Your task to perform on an android device: change alarm snooze length Image 0: 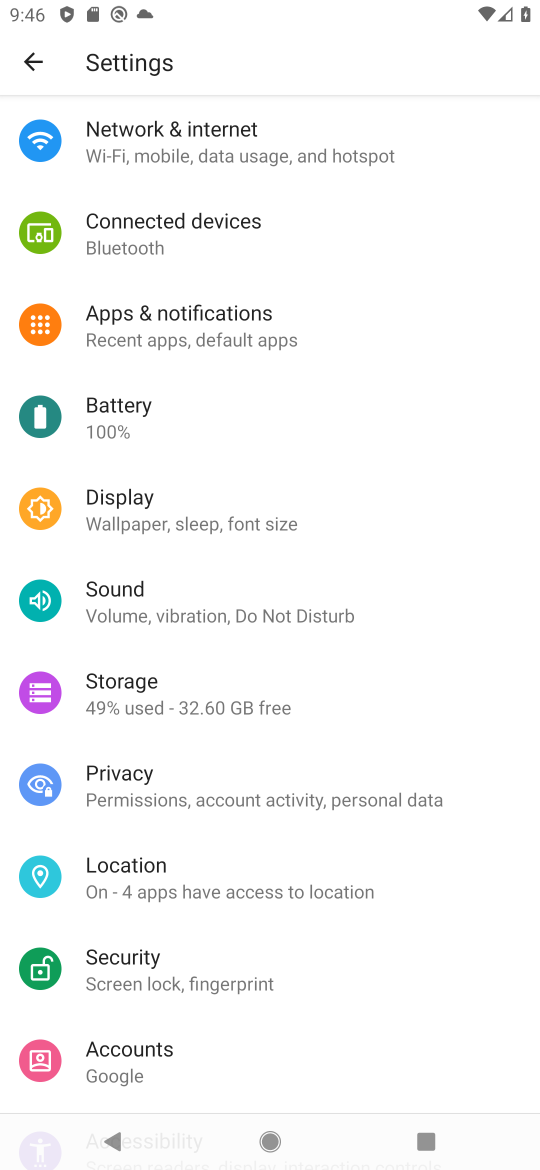
Step 0: press home button
Your task to perform on an android device: change alarm snooze length Image 1: 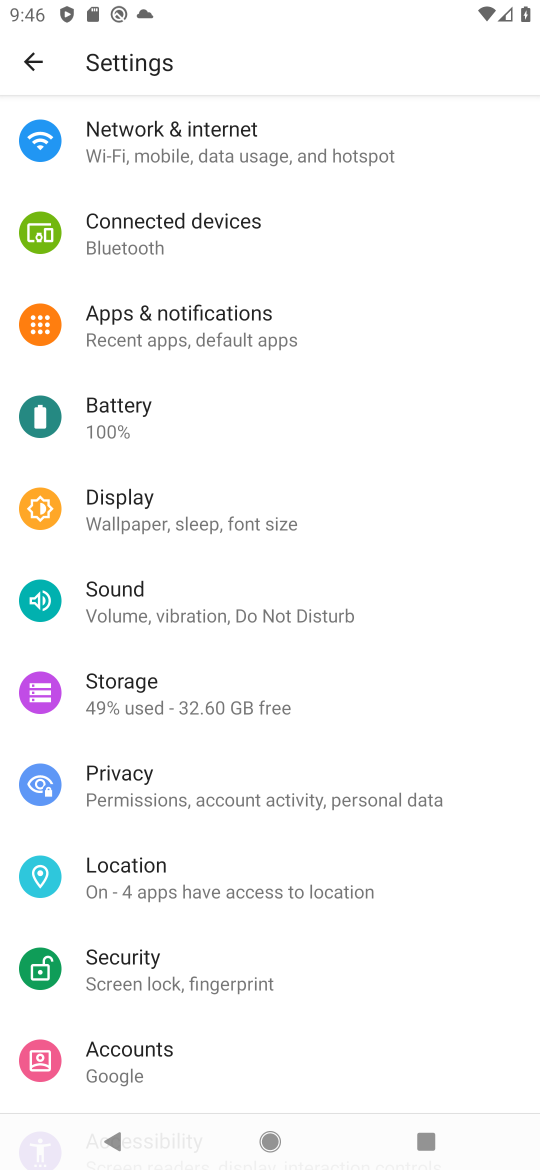
Step 1: press home button
Your task to perform on an android device: change alarm snooze length Image 2: 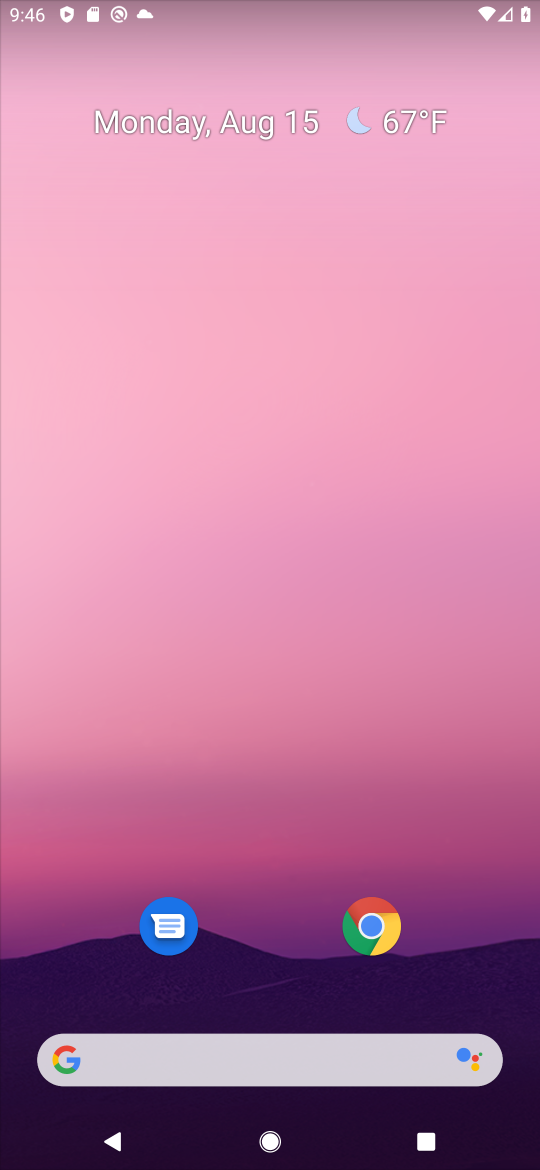
Step 2: drag from (273, 973) to (329, 42)
Your task to perform on an android device: change alarm snooze length Image 3: 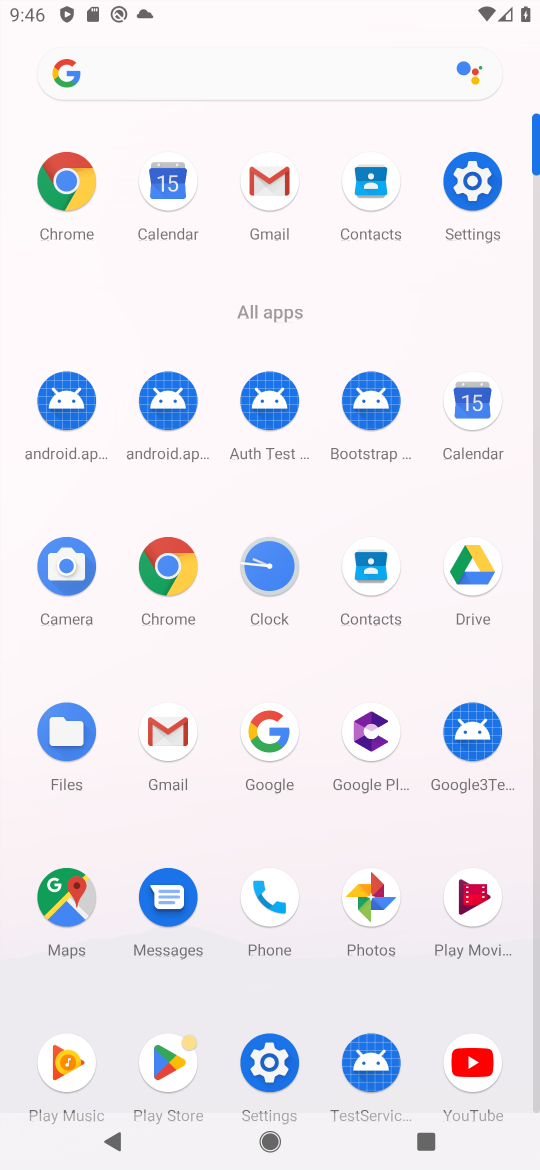
Step 3: click (471, 1075)
Your task to perform on an android device: change alarm snooze length Image 4: 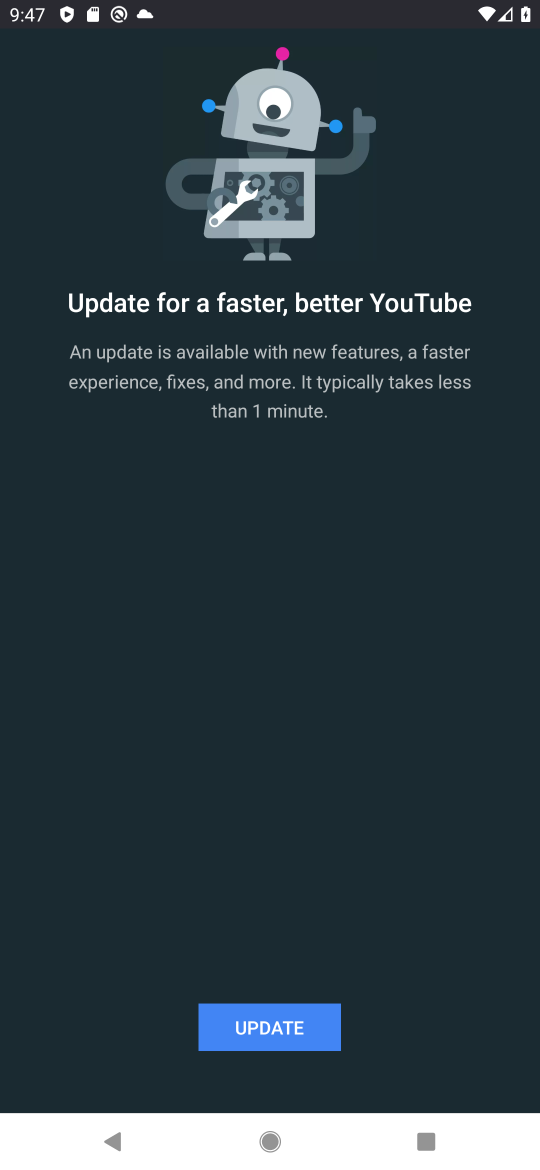
Step 4: press home button
Your task to perform on an android device: change alarm snooze length Image 5: 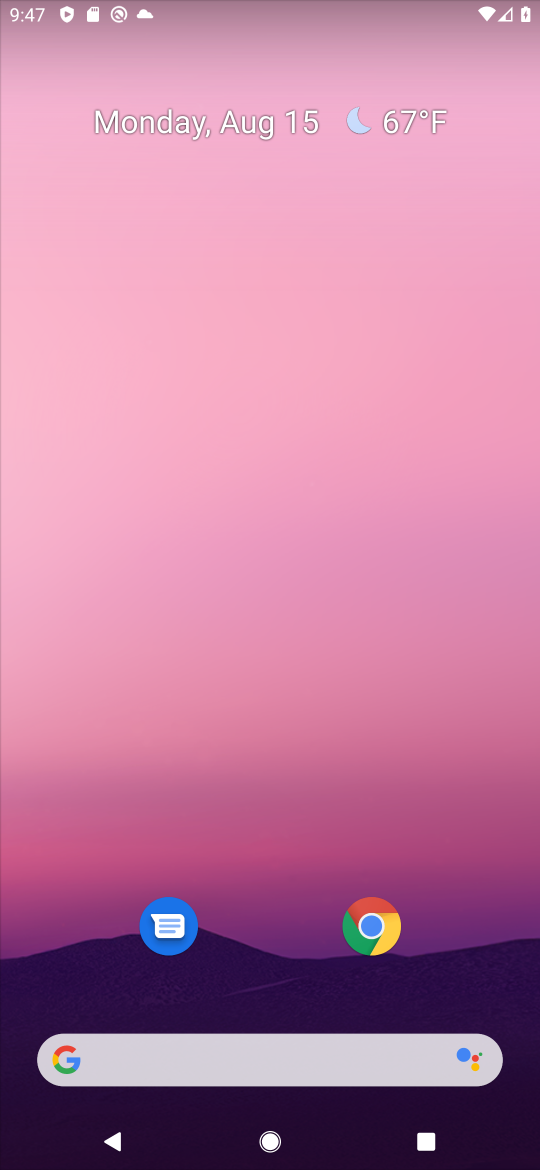
Step 5: drag from (273, 878) to (256, 348)
Your task to perform on an android device: change alarm snooze length Image 6: 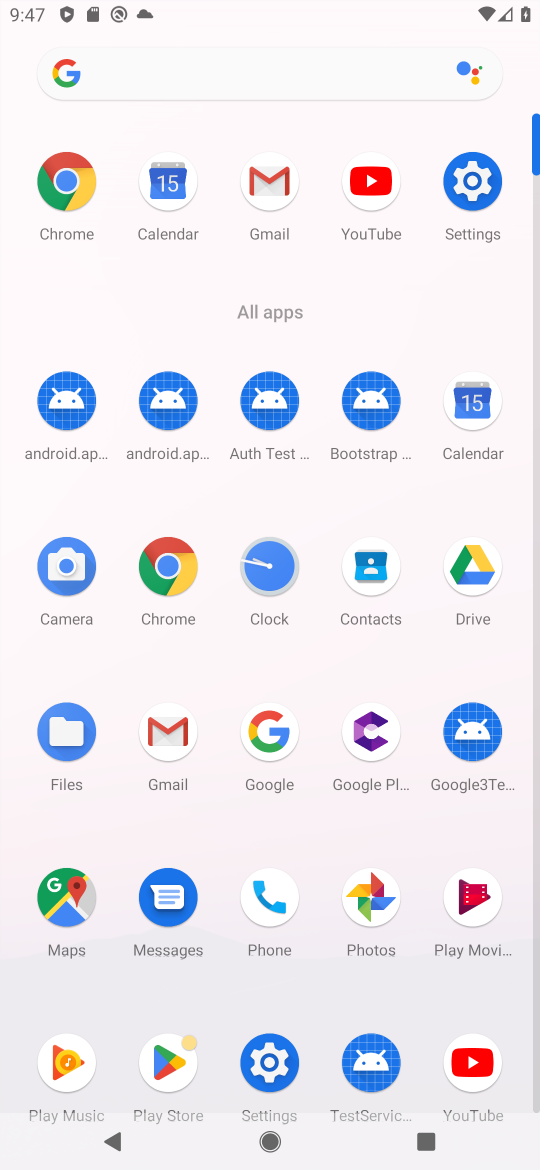
Step 6: click (277, 580)
Your task to perform on an android device: change alarm snooze length Image 7: 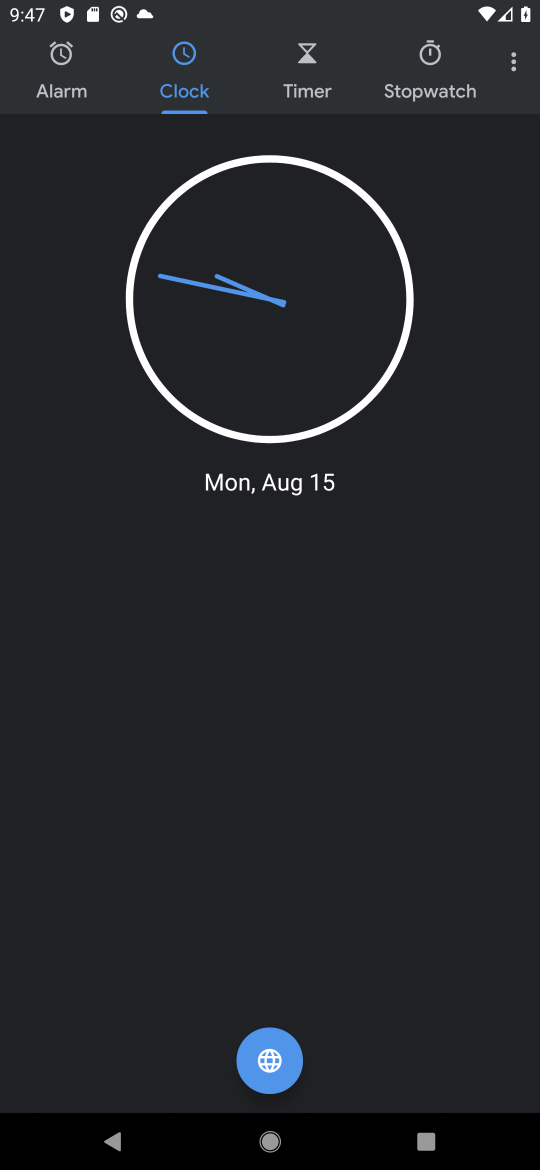
Step 7: click (511, 77)
Your task to perform on an android device: change alarm snooze length Image 8: 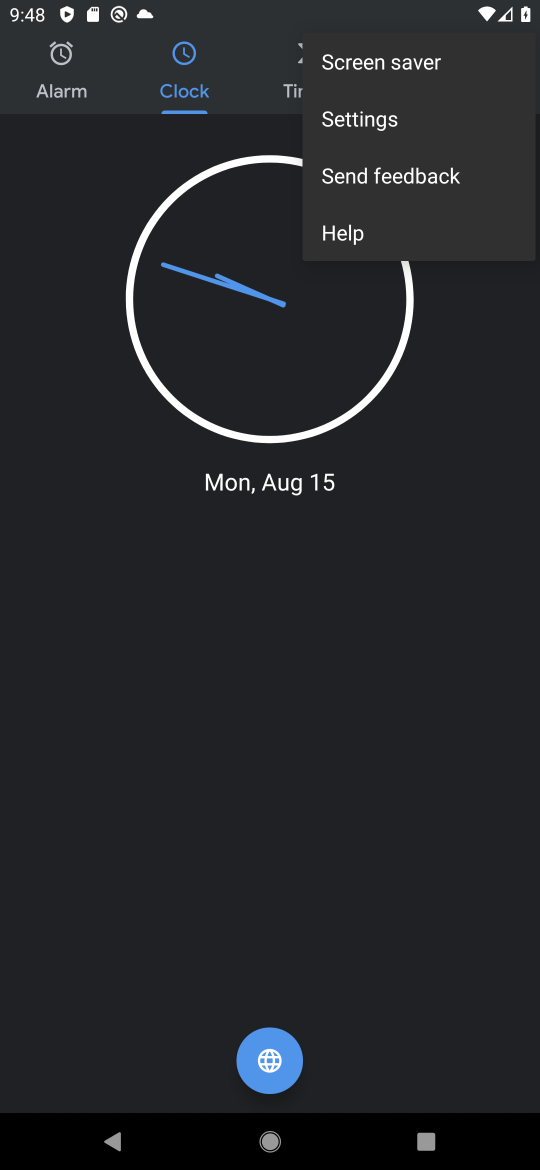
Step 8: click (407, 111)
Your task to perform on an android device: change alarm snooze length Image 9: 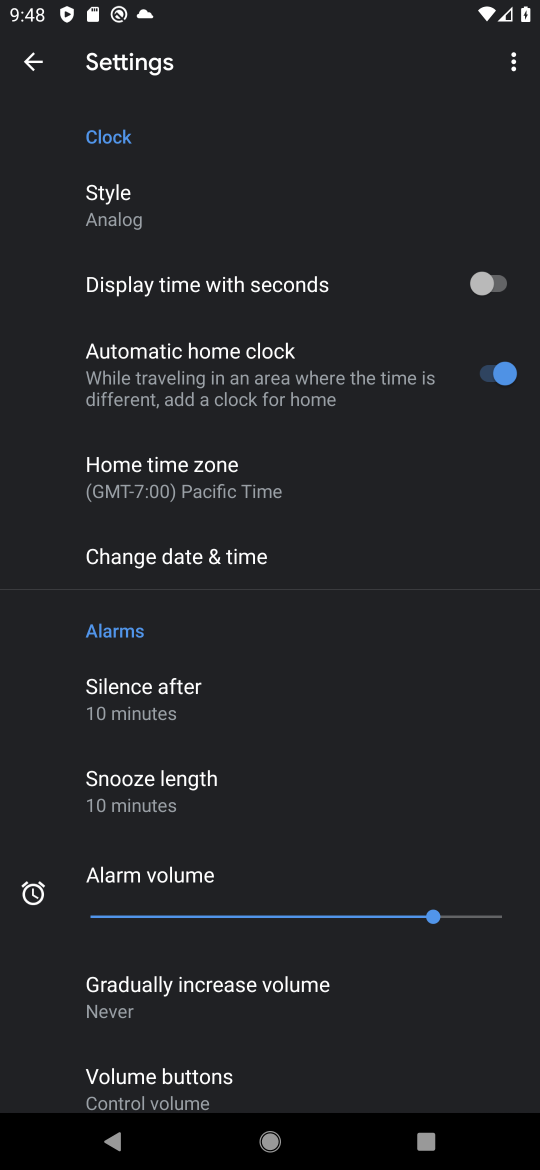
Step 9: click (183, 757)
Your task to perform on an android device: change alarm snooze length Image 10: 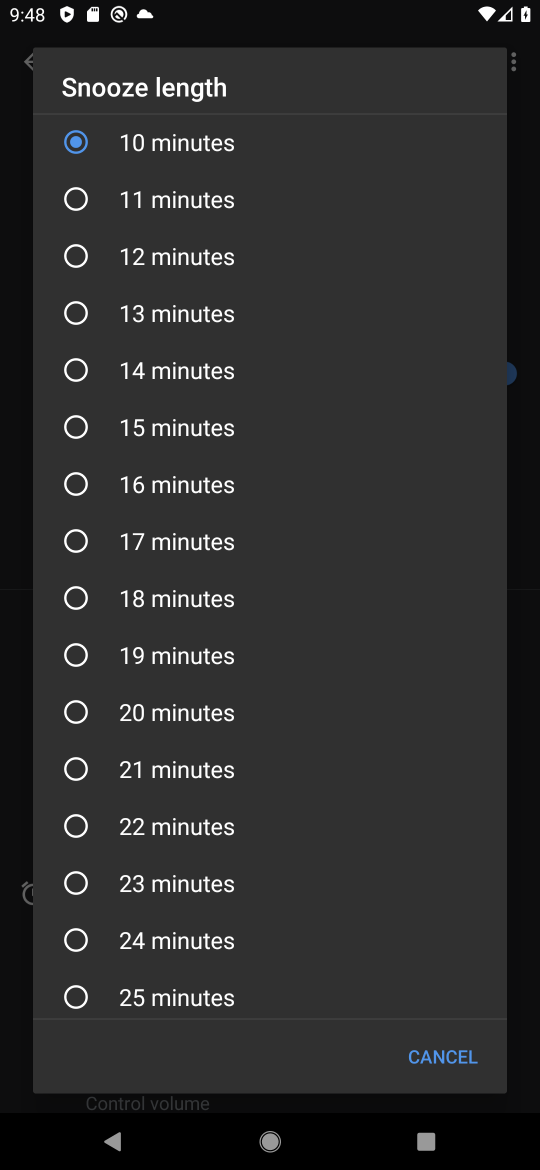
Step 10: click (168, 938)
Your task to perform on an android device: change alarm snooze length Image 11: 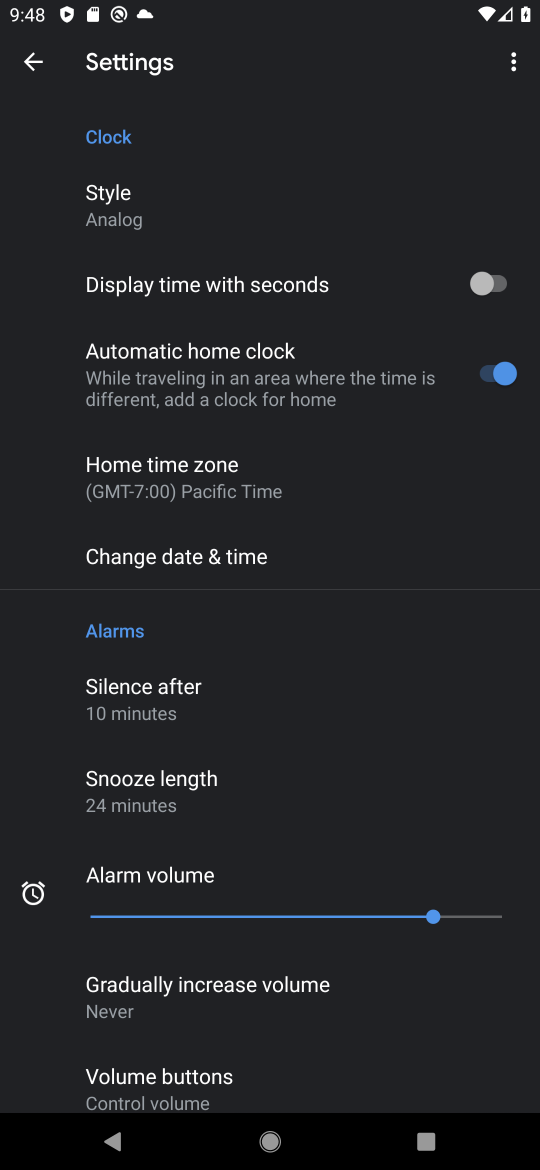
Step 11: task complete